Your task to perform on an android device: turn on improve location accuracy Image 0: 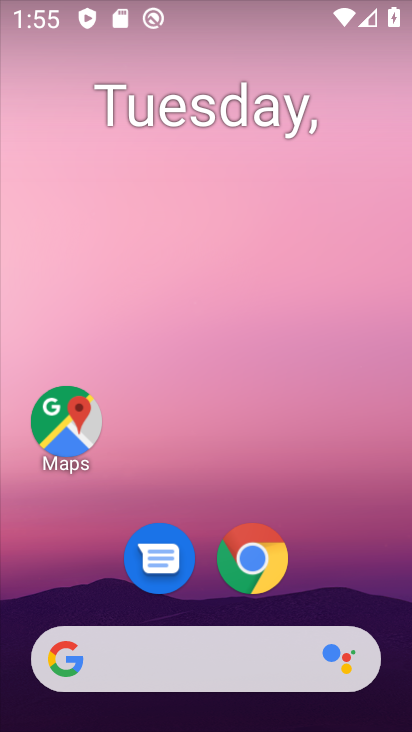
Step 0: drag from (194, 583) to (297, 57)
Your task to perform on an android device: turn on improve location accuracy Image 1: 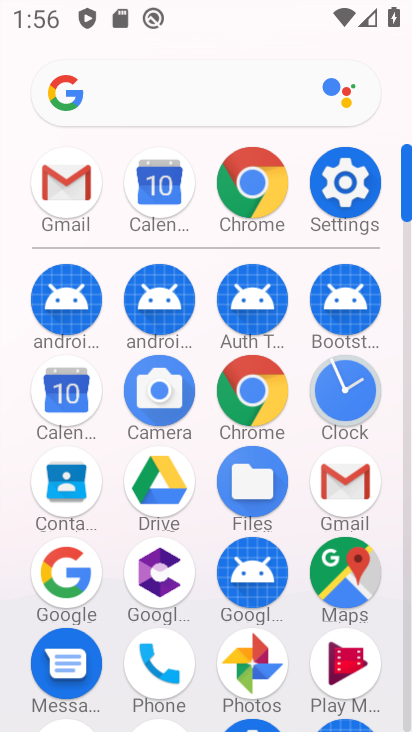
Step 1: click (338, 188)
Your task to perform on an android device: turn on improve location accuracy Image 2: 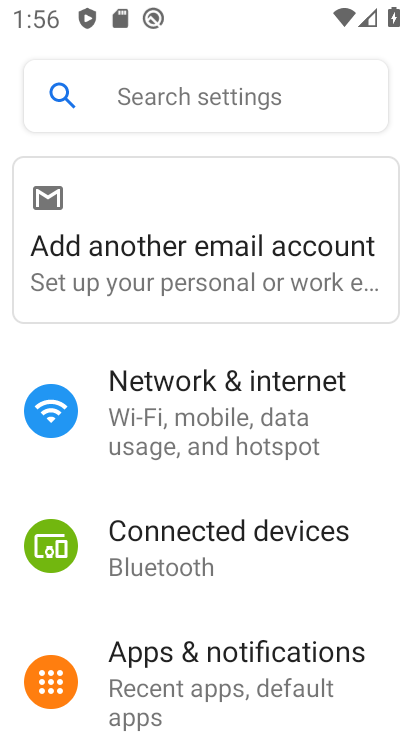
Step 2: drag from (222, 632) to (339, 160)
Your task to perform on an android device: turn on improve location accuracy Image 3: 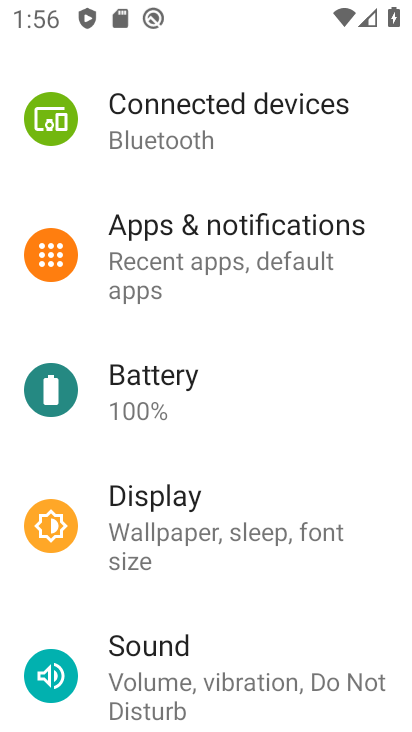
Step 3: drag from (158, 618) to (294, 102)
Your task to perform on an android device: turn on improve location accuracy Image 4: 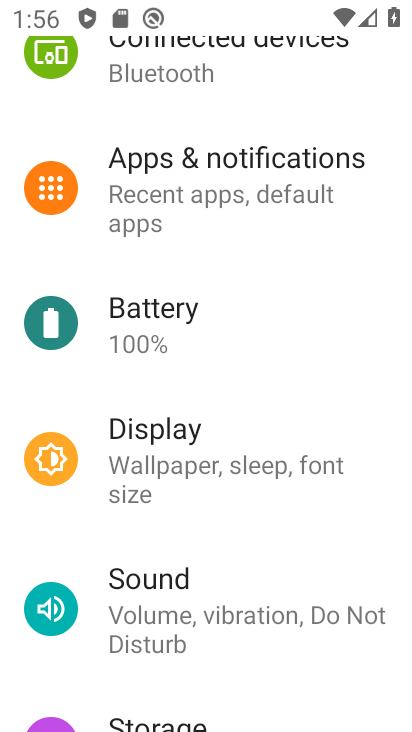
Step 4: drag from (198, 655) to (287, 95)
Your task to perform on an android device: turn on improve location accuracy Image 5: 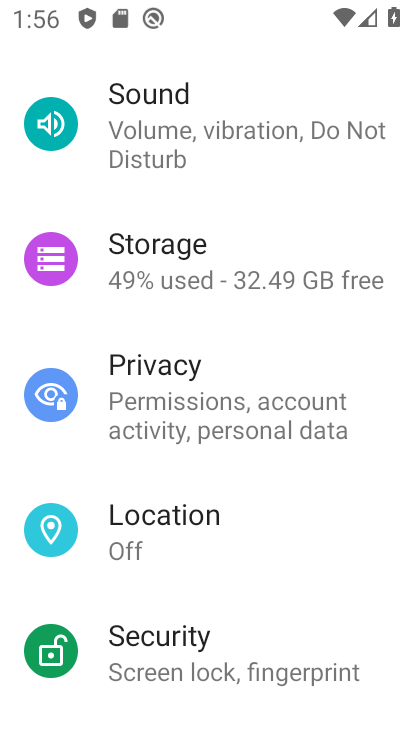
Step 5: click (128, 538)
Your task to perform on an android device: turn on improve location accuracy Image 6: 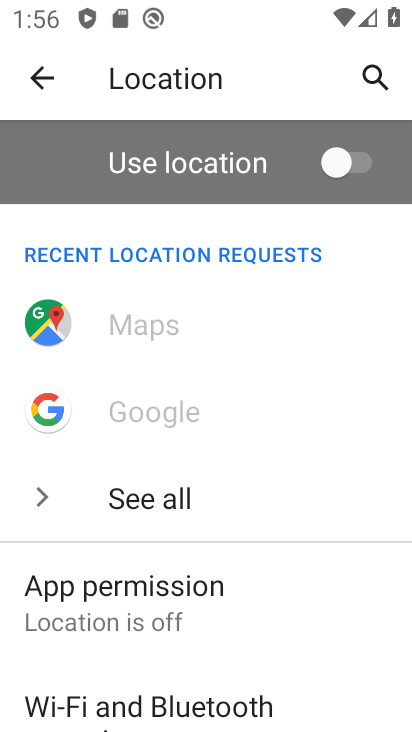
Step 6: drag from (185, 663) to (333, 132)
Your task to perform on an android device: turn on improve location accuracy Image 7: 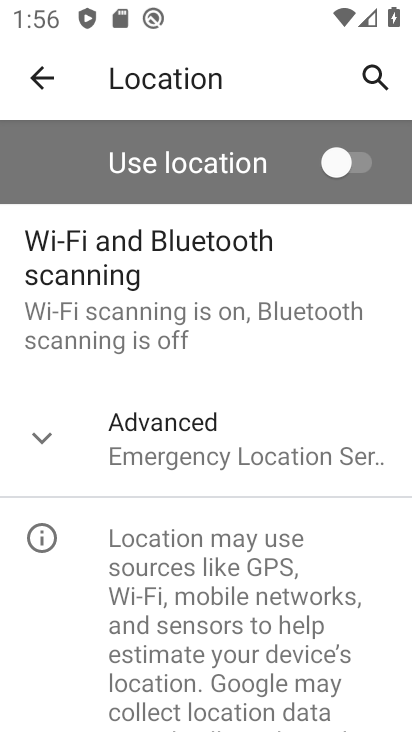
Step 7: click (218, 426)
Your task to perform on an android device: turn on improve location accuracy Image 8: 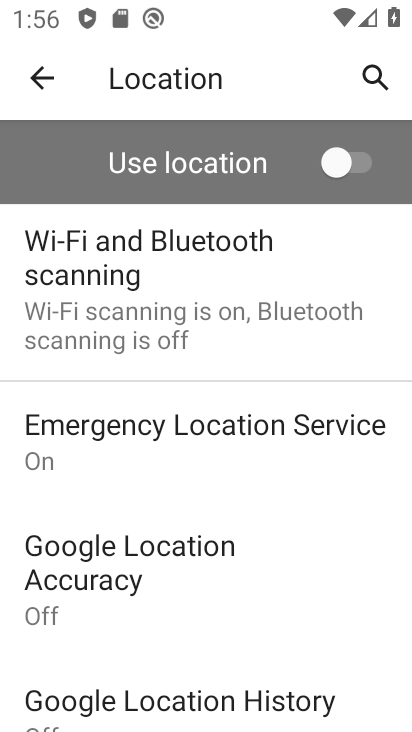
Step 8: drag from (167, 686) to (227, 483)
Your task to perform on an android device: turn on improve location accuracy Image 9: 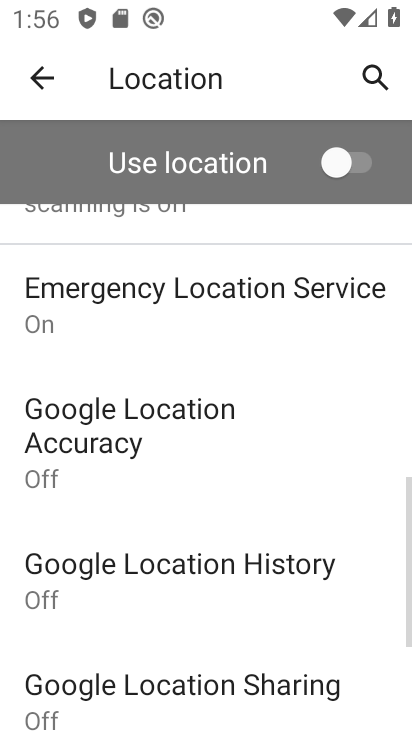
Step 9: click (126, 433)
Your task to perform on an android device: turn on improve location accuracy Image 10: 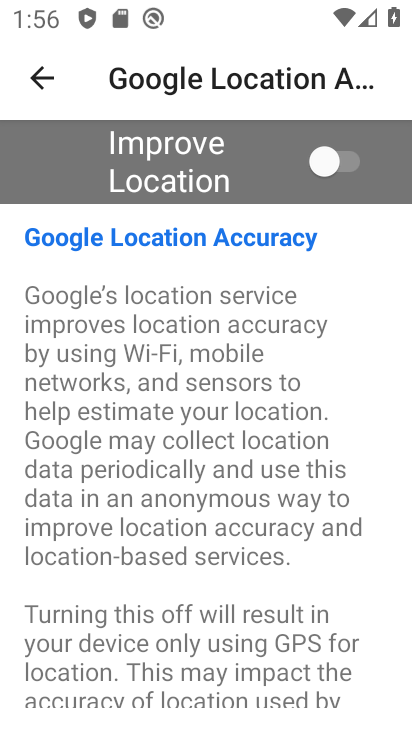
Step 10: click (333, 148)
Your task to perform on an android device: turn on improve location accuracy Image 11: 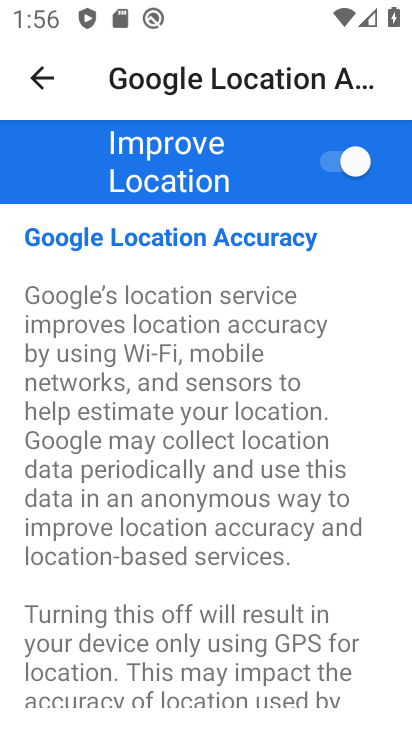
Step 11: task complete